Your task to perform on an android device: Go to Amazon Image 0: 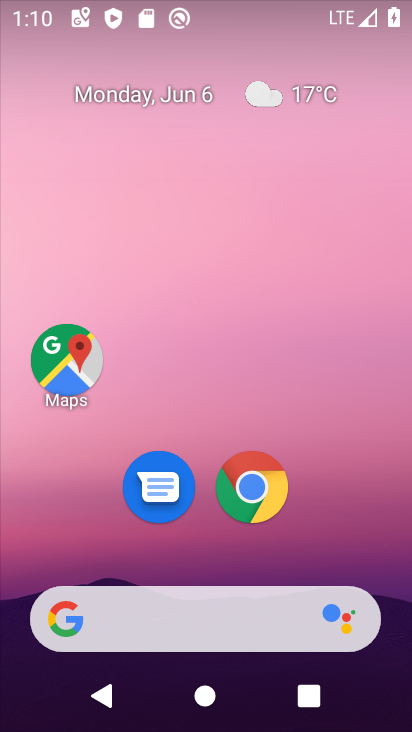
Step 0: click (259, 484)
Your task to perform on an android device: Go to Amazon Image 1: 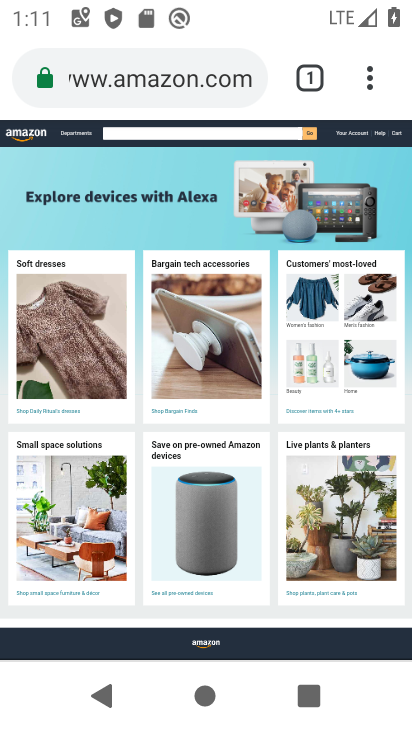
Step 1: task complete